Your task to perform on an android device: What's on my calendar tomorrow? Image 0: 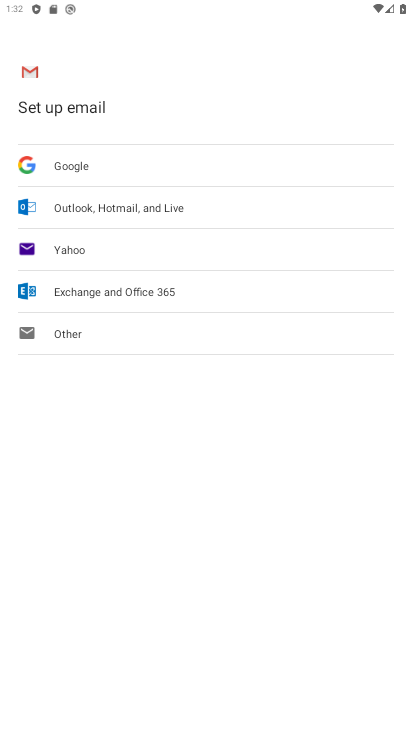
Step 0: press home button
Your task to perform on an android device: What's on my calendar tomorrow? Image 1: 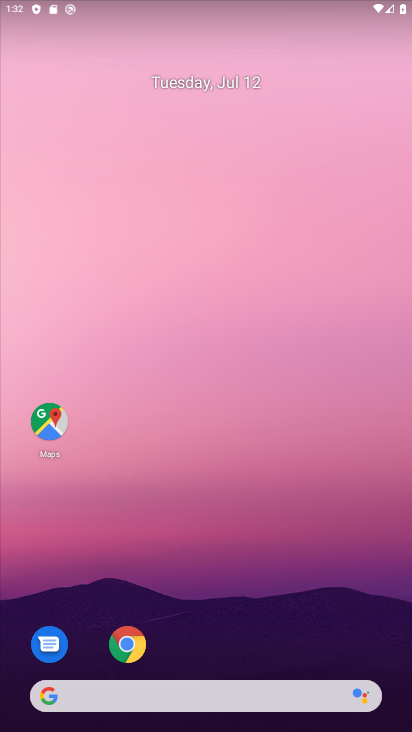
Step 1: drag from (218, 666) to (139, 113)
Your task to perform on an android device: What's on my calendar tomorrow? Image 2: 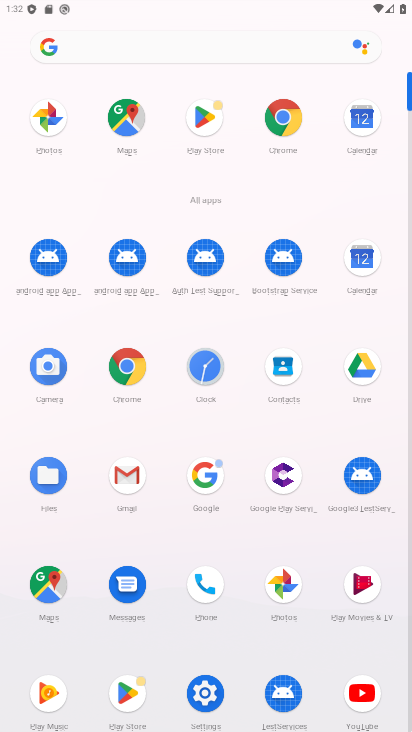
Step 2: click (365, 255)
Your task to perform on an android device: What's on my calendar tomorrow? Image 3: 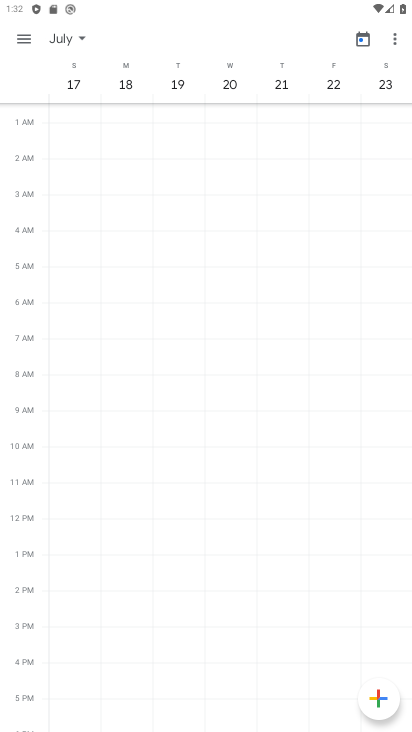
Step 3: click (362, 31)
Your task to perform on an android device: What's on my calendar tomorrow? Image 4: 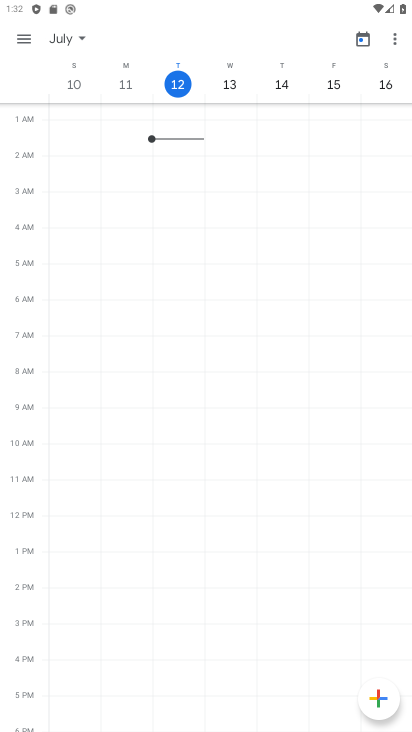
Step 4: click (227, 81)
Your task to perform on an android device: What's on my calendar tomorrow? Image 5: 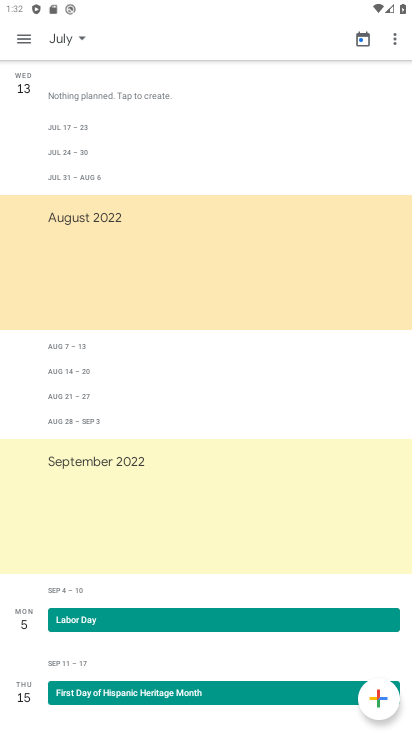
Step 5: task complete